Your task to perform on an android device: find snoozed emails in the gmail app Image 0: 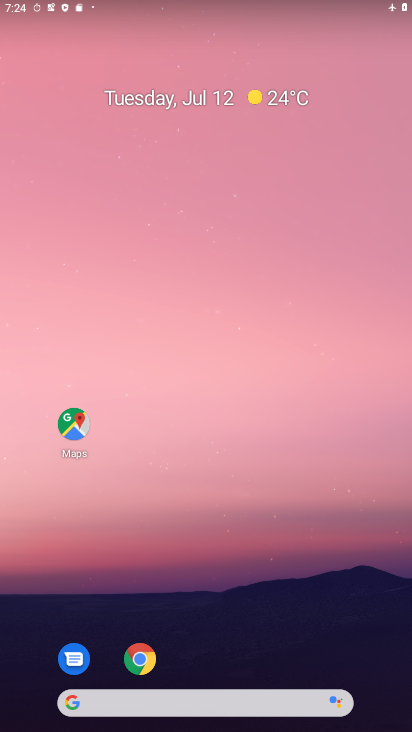
Step 0: drag from (375, 671) to (241, 39)
Your task to perform on an android device: find snoozed emails in the gmail app Image 1: 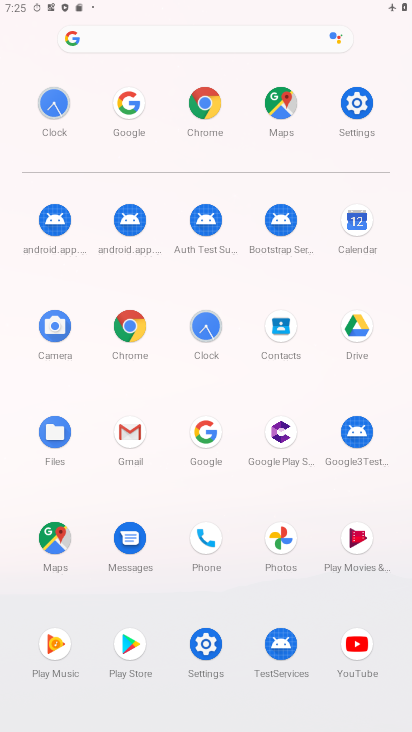
Step 1: click (132, 440)
Your task to perform on an android device: find snoozed emails in the gmail app Image 2: 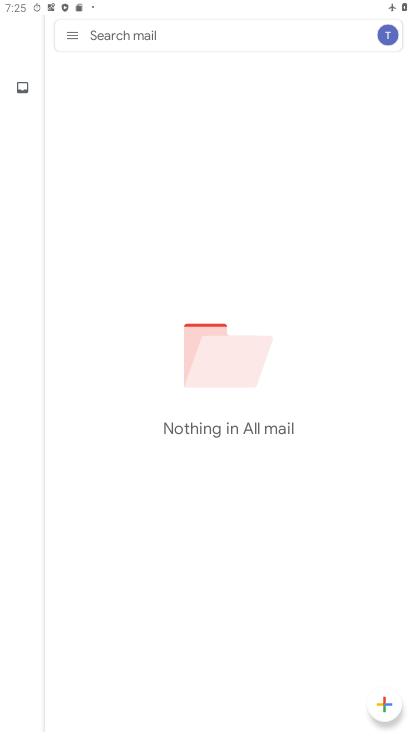
Step 2: click (70, 32)
Your task to perform on an android device: find snoozed emails in the gmail app Image 3: 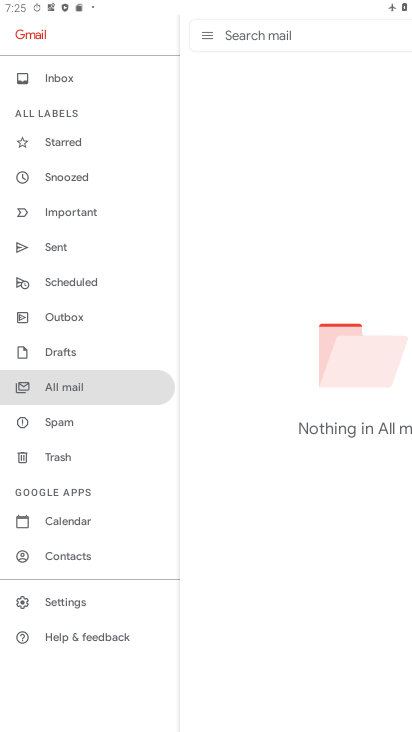
Step 3: click (76, 175)
Your task to perform on an android device: find snoozed emails in the gmail app Image 4: 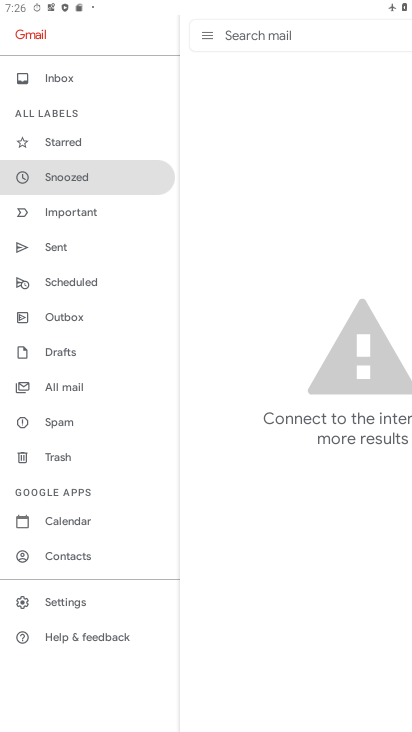
Step 4: task complete